Your task to perform on an android device: Search for pizza restaurants on Maps Image 0: 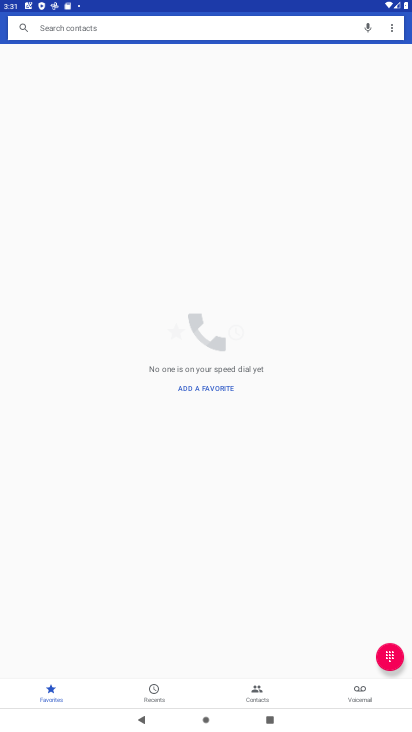
Step 0: press home button
Your task to perform on an android device: Search for pizza restaurants on Maps Image 1: 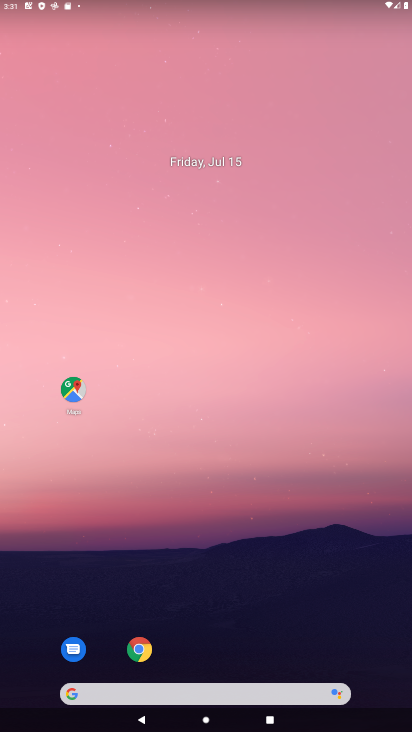
Step 1: drag from (330, 573) to (297, 65)
Your task to perform on an android device: Search for pizza restaurants on Maps Image 2: 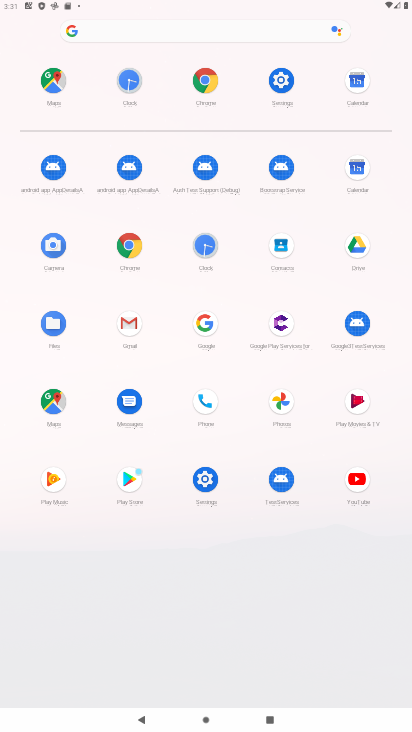
Step 2: click (47, 78)
Your task to perform on an android device: Search for pizza restaurants on Maps Image 3: 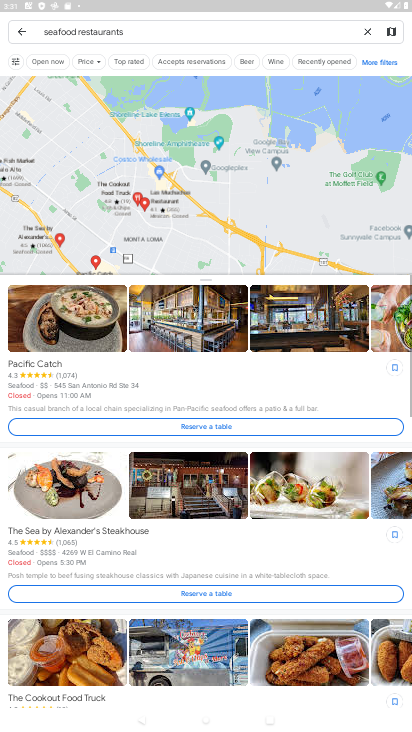
Step 3: click (96, 36)
Your task to perform on an android device: Search for pizza restaurants on Maps Image 4: 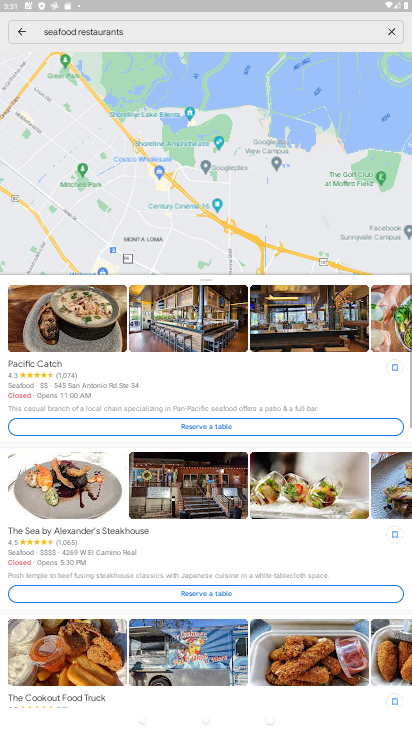
Step 4: click (105, 26)
Your task to perform on an android device: Search for pizza restaurants on Maps Image 5: 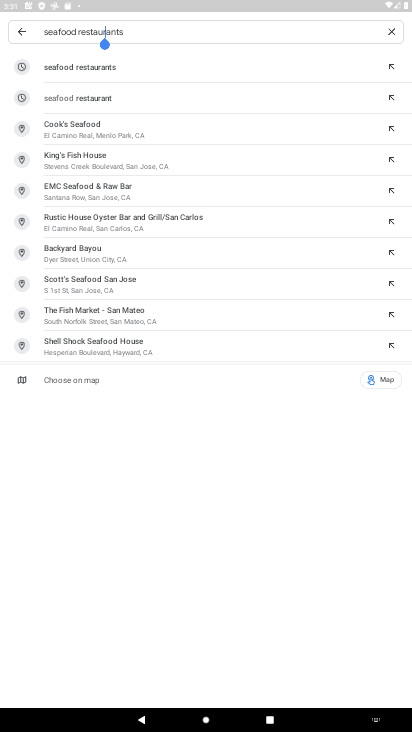
Step 5: click (179, 27)
Your task to perform on an android device: Search for pizza restaurants on Maps Image 6: 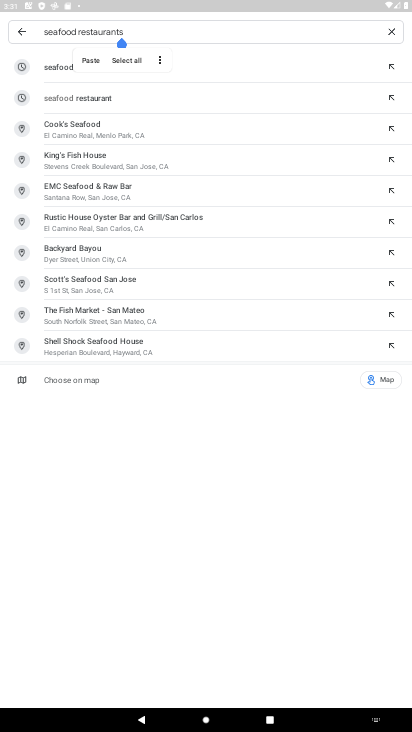
Step 6: click (393, 29)
Your task to perform on an android device: Search for pizza restaurants on Maps Image 7: 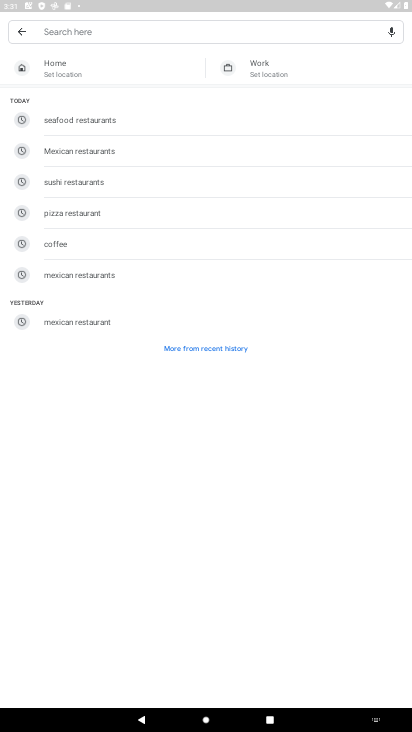
Step 7: type "pizza restaurants"
Your task to perform on an android device: Search for pizza restaurants on Maps Image 8: 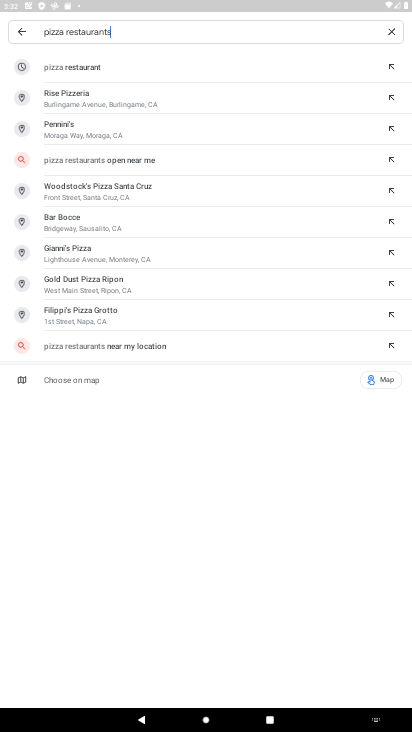
Step 8: press enter
Your task to perform on an android device: Search for pizza restaurants on Maps Image 9: 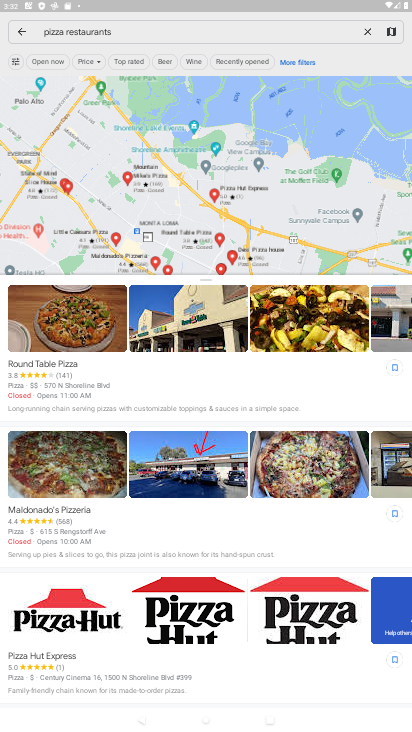
Step 9: task complete